Your task to perform on an android device: set the timer Image 0: 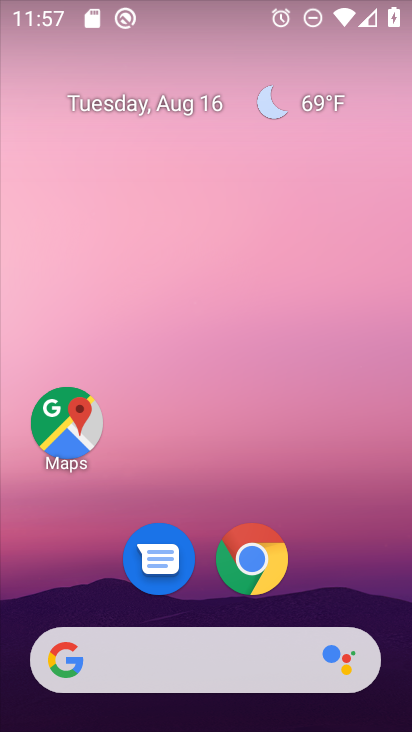
Step 0: drag from (187, 670) to (179, 168)
Your task to perform on an android device: set the timer Image 1: 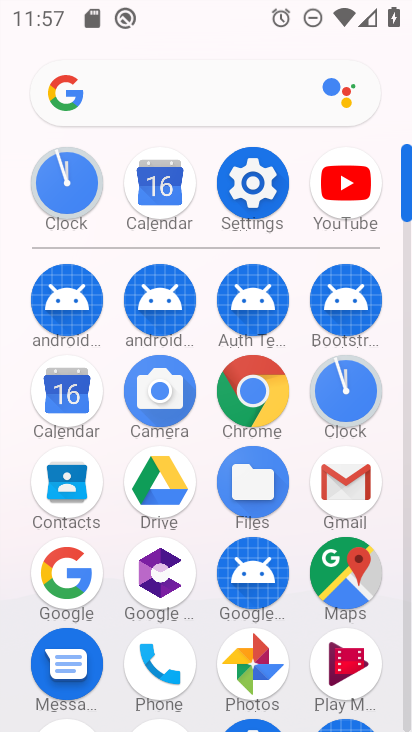
Step 1: click (67, 185)
Your task to perform on an android device: set the timer Image 2: 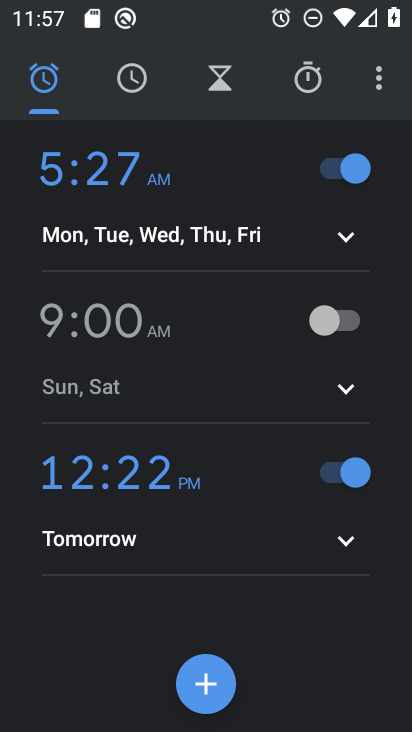
Step 2: click (220, 87)
Your task to perform on an android device: set the timer Image 3: 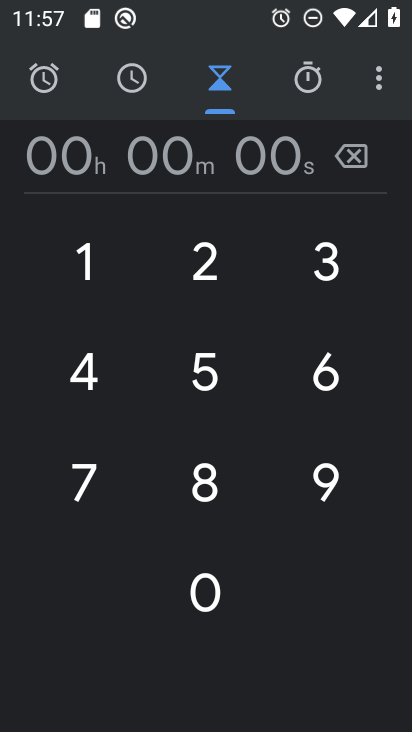
Step 3: type "1479"
Your task to perform on an android device: set the timer Image 4: 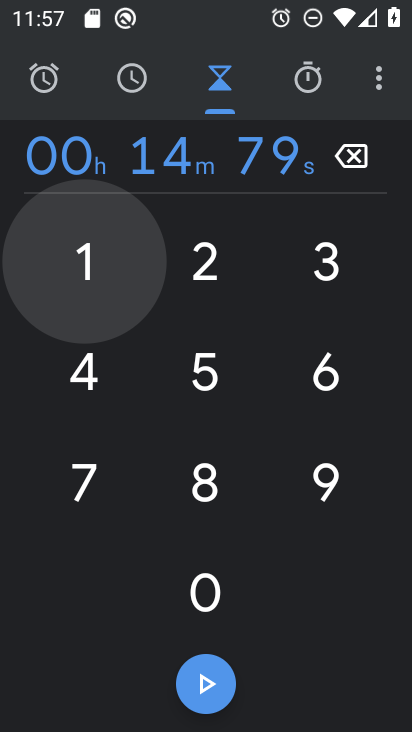
Step 4: click (204, 682)
Your task to perform on an android device: set the timer Image 5: 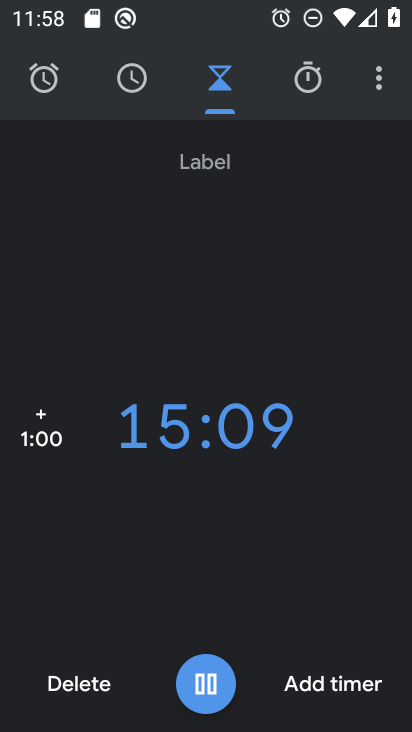
Step 5: click (212, 693)
Your task to perform on an android device: set the timer Image 6: 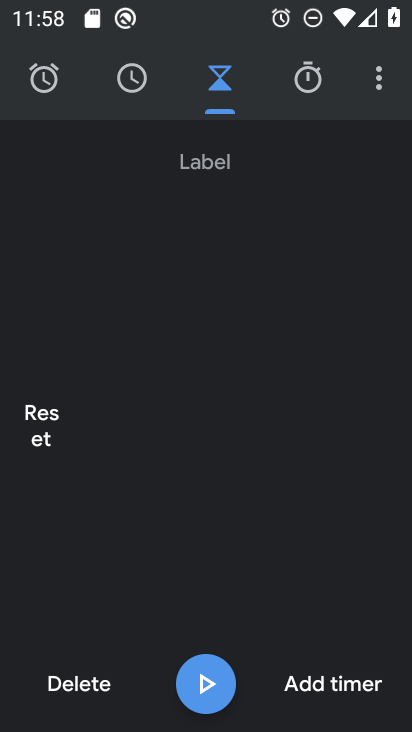
Step 6: task complete